Your task to perform on an android device: open a bookmark in the chrome app Image 0: 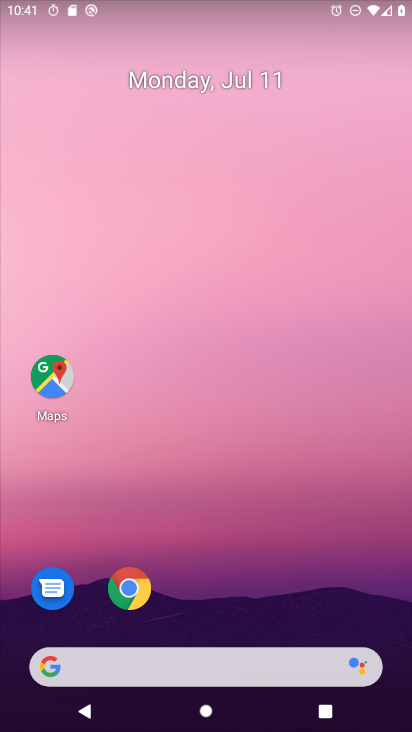
Step 0: click (148, 585)
Your task to perform on an android device: open a bookmark in the chrome app Image 1: 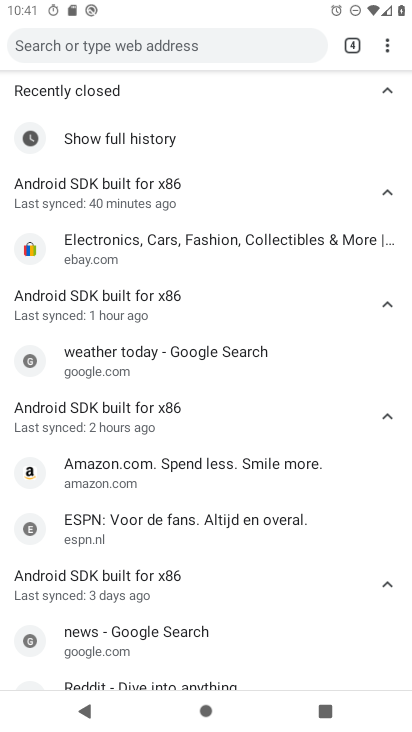
Step 1: click (377, 31)
Your task to perform on an android device: open a bookmark in the chrome app Image 2: 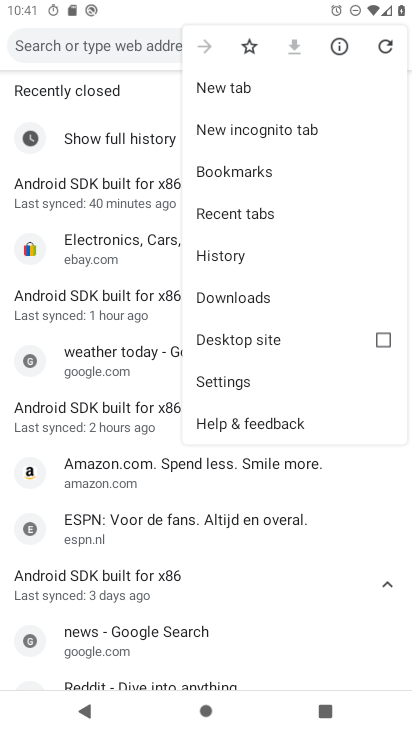
Step 2: click (256, 179)
Your task to perform on an android device: open a bookmark in the chrome app Image 3: 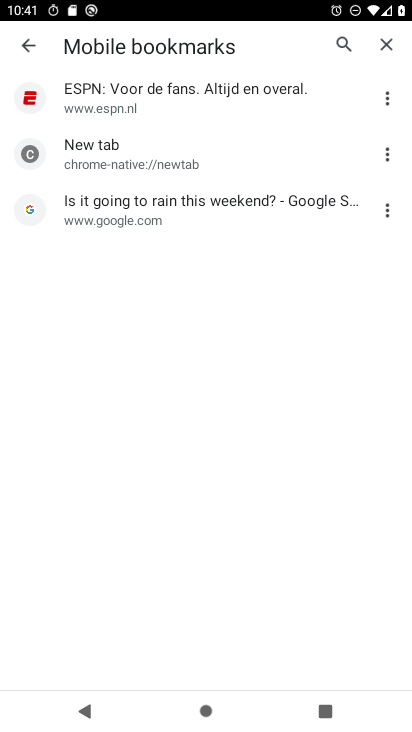
Step 3: click (127, 207)
Your task to perform on an android device: open a bookmark in the chrome app Image 4: 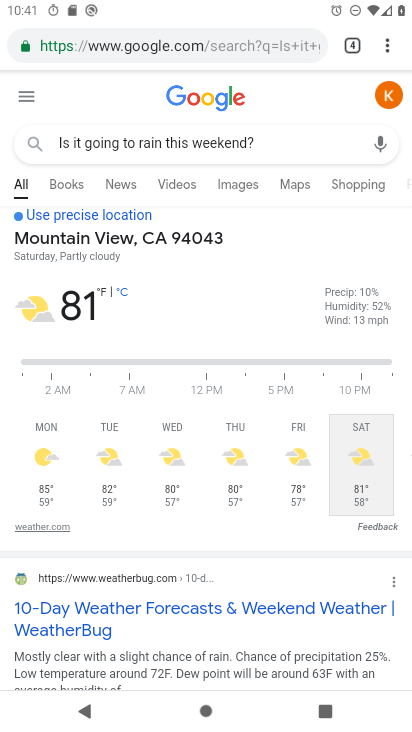
Step 4: task complete